Your task to perform on an android device: install app "Pandora - Music & Podcasts" Image 0: 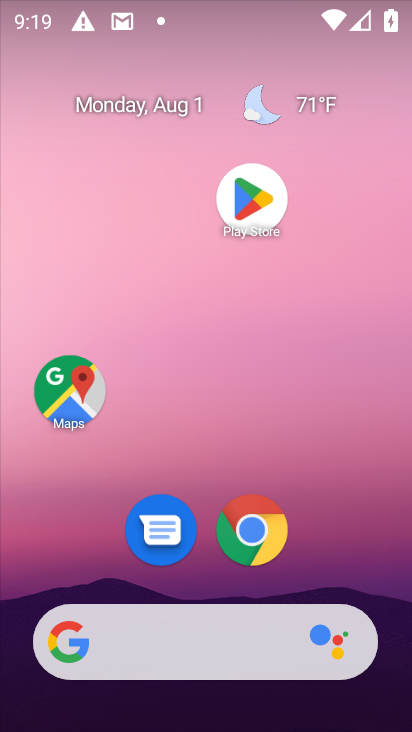
Step 0: click (244, 201)
Your task to perform on an android device: install app "Pandora - Music & Podcasts" Image 1: 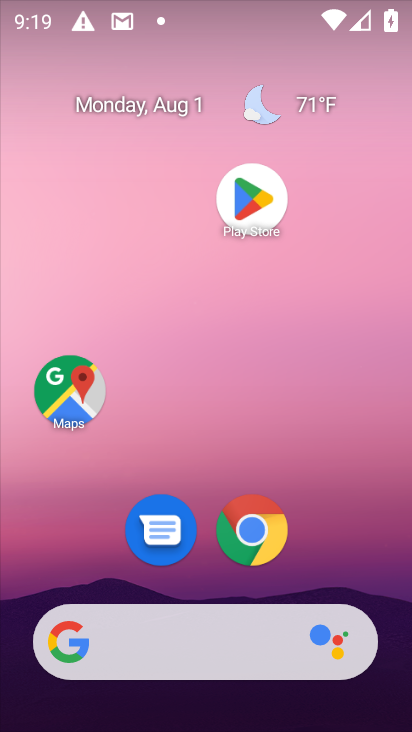
Step 1: click (244, 201)
Your task to perform on an android device: install app "Pandora - Music & Podcasts" Image 2: 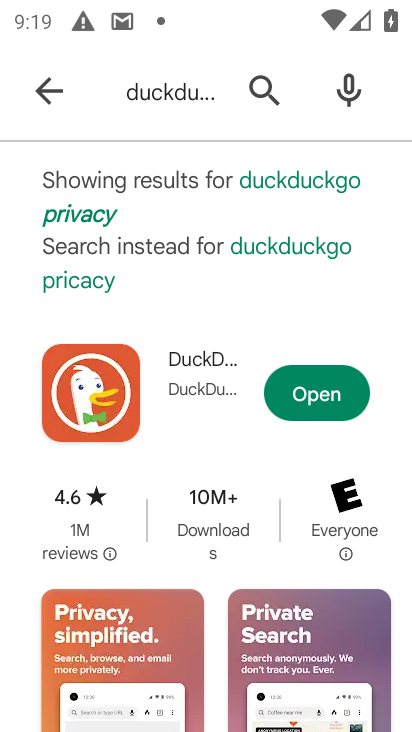
Step 2: click (268, 78)
Your task to perform on an android device: install app "Pandora - Music & Podcasts" Image 3: 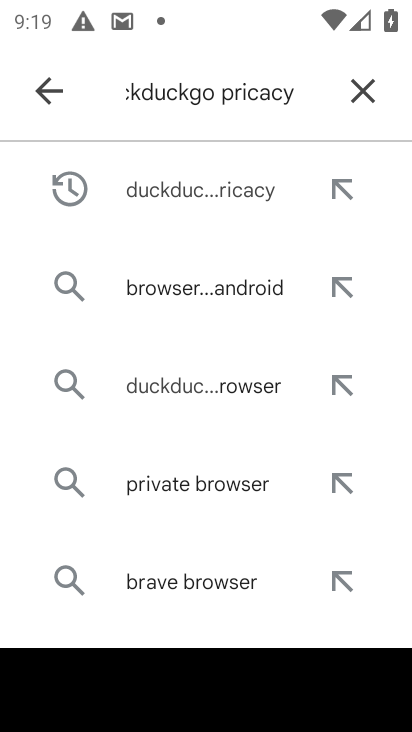
Step 3: click (349, 91)
Your task to perform on an android device: install app "Pandora - Music & Podcasts" Image 4: 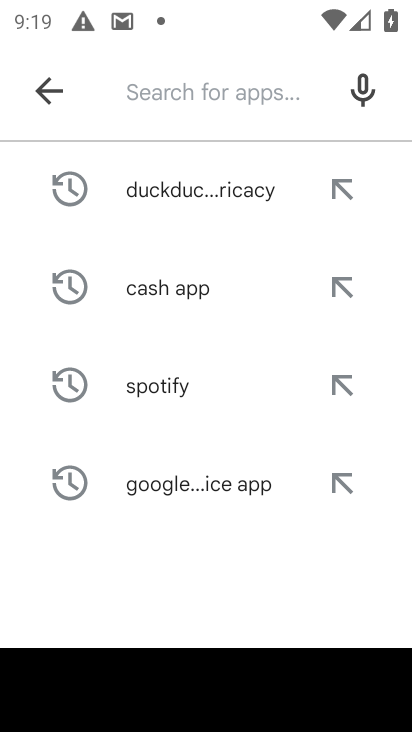
Step 4: type "Pandora - Music & Podcasts"
Your task to perform on an android device: install app "Pandora - Music & Podcasts" Image 5: 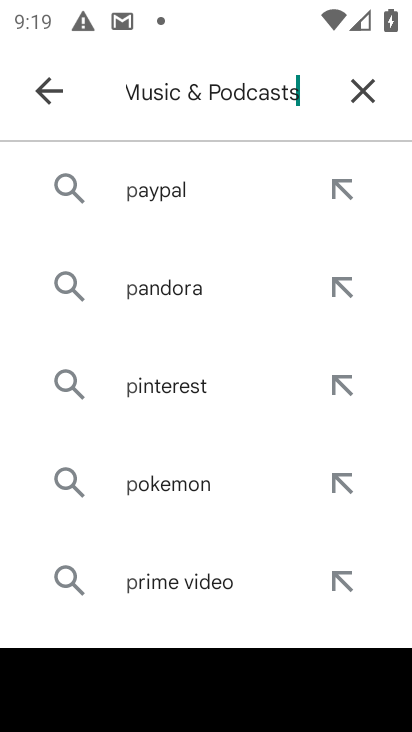
Step 5: type ""
Your task to perform on an android device: install app "Pandora - Music & Podcasts" Image 6: 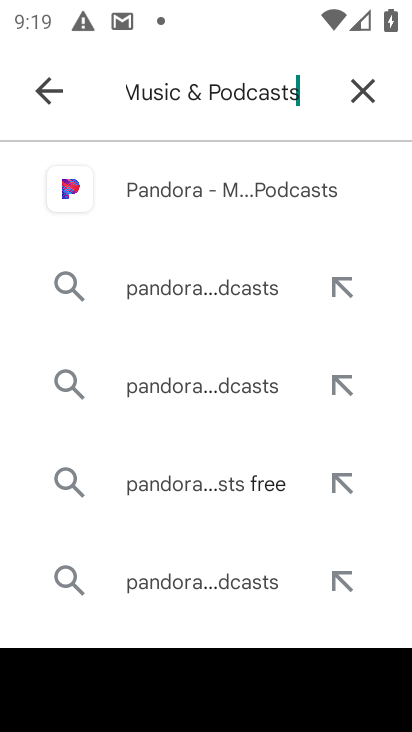
Step 6: click (282, 195)
Your task to perform on an android device: install app "Pandora - Music & Podcasts" Image 7: 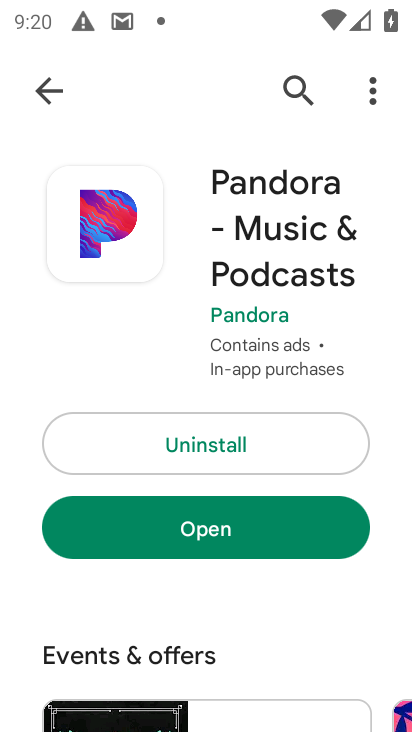
Step 7: task complete